Your task to perform on an android device: toggle pop-ups in chrome Image 0: 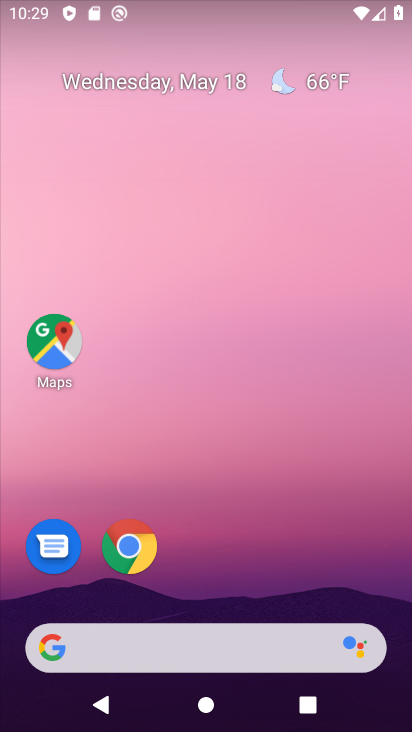
Step 0: click (127, 555)
Your task to perform on an android device: toggle pop-ups in chrome Image 1: 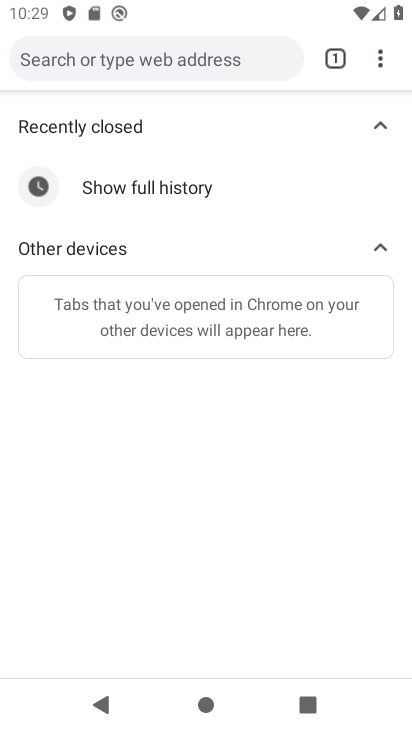
Step 1: click (375, 57)
Your task to perform on an android device: toggle pop-ups in chrome Image 2: 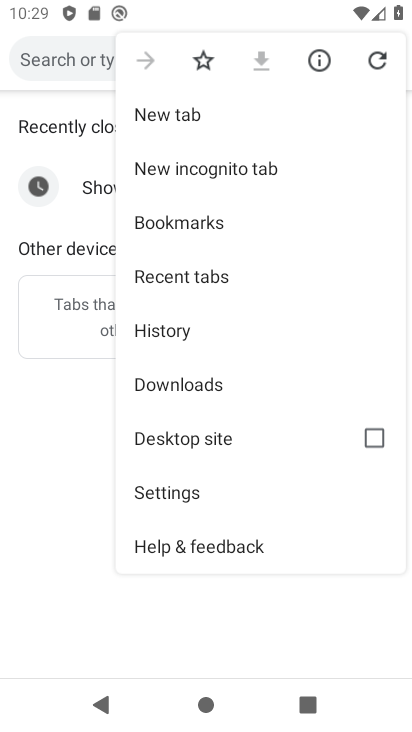
Step 2: click (138, 490)
Your task to perform on an android device: toggle pop-ups in chrome Image 3: 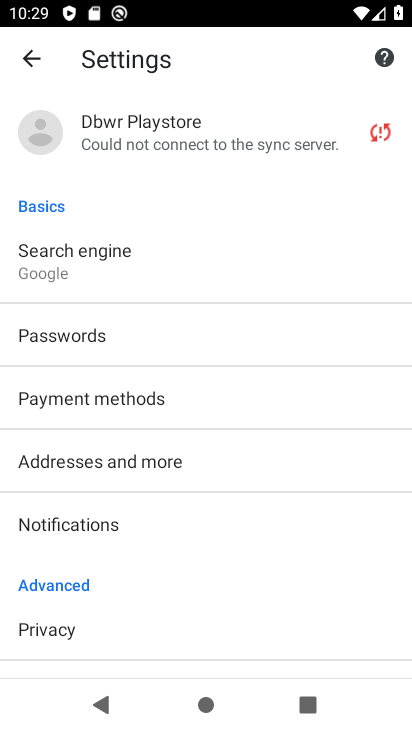
Step 3: drag from (118, 624) to (183, 185)
Your task to perform on an android device: toggle pop-ups in chrome Image 4: 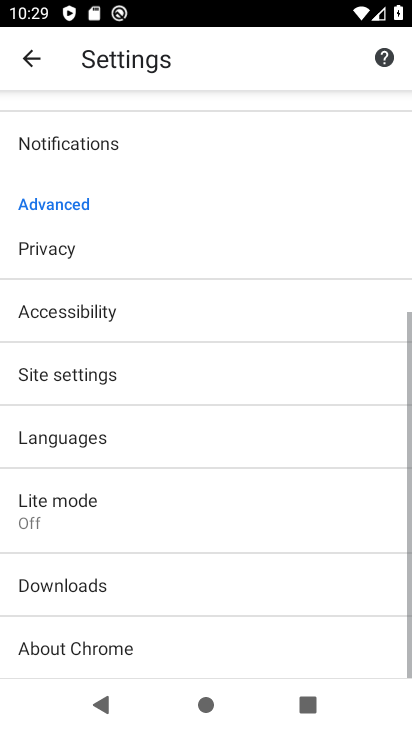
Step 4: click (65, 376)
Your task to perform on an android device: toggle pop-ups in chrome Image 5: 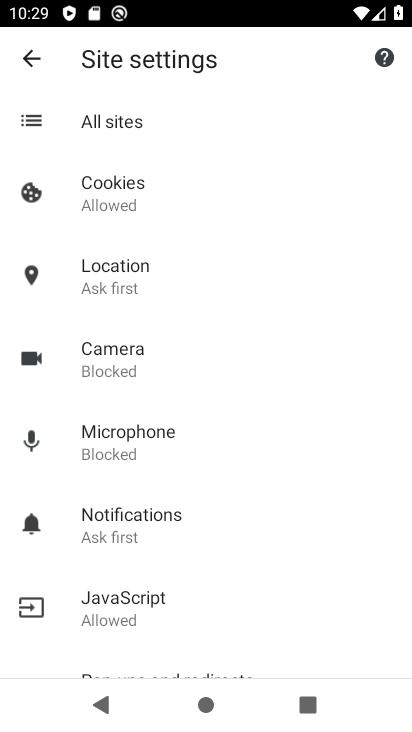
Step 5: drag from (161, 616) to (206, 253)
Your task to perform on an android device: toggle pop-ups in chrome Image 6: 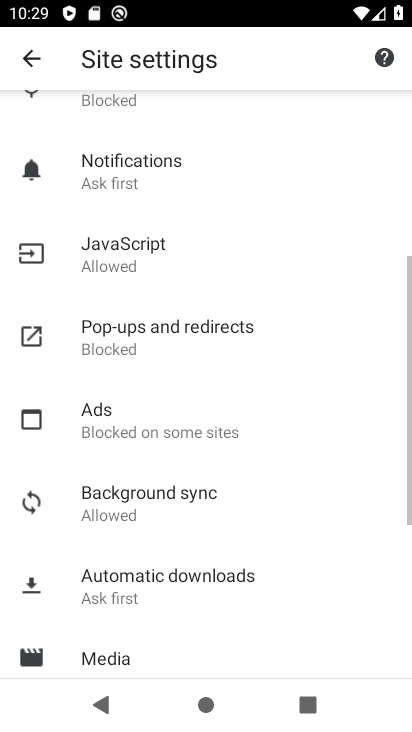
Step 6: click (132, 337)
Your task to perform on an android device: toggle pop-ups in chrome Image 7: 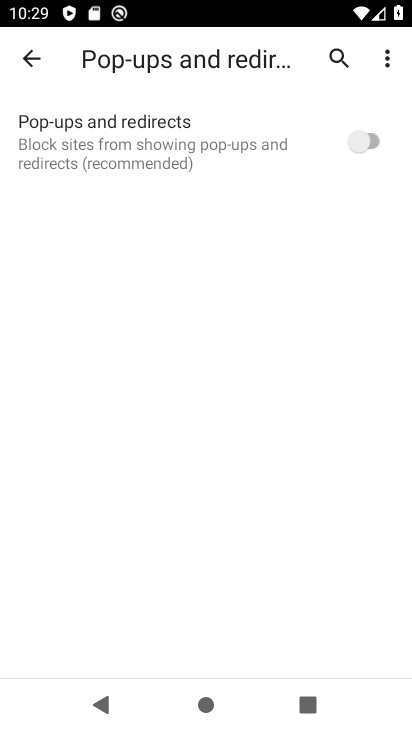
Step 7: click (368, 144)
Your task to perform on an android device: toggle pop-ups in chrome Image 8: 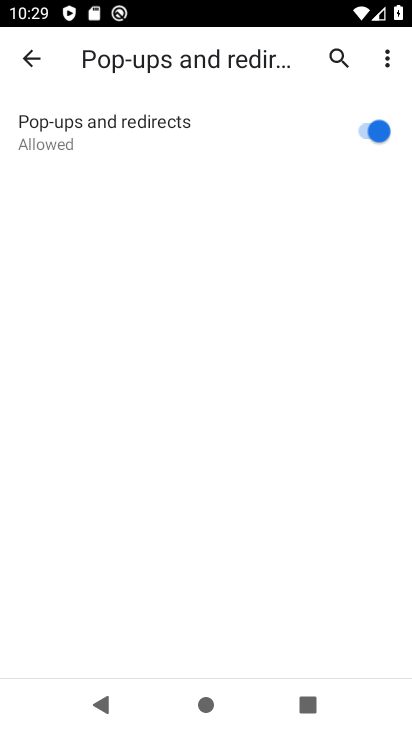
Step 8: click (368, 144)
Your task to perform on an android device: toggle pop-ups in chrome Image 9: 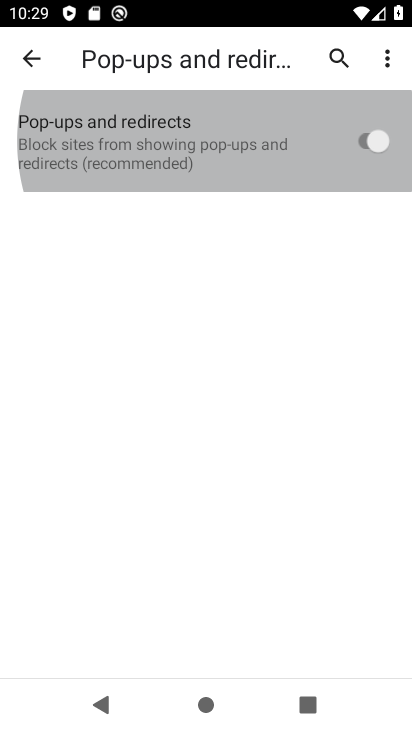
Step 9: click (368, 144)
Your task to perform on an android device: toggle pop-ups in chrome Image 10: 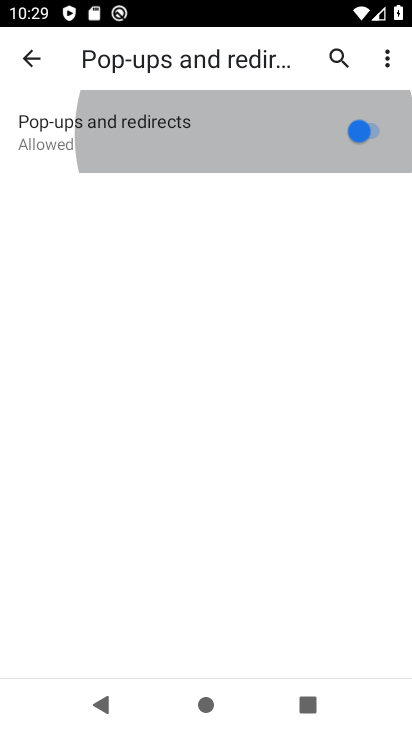
Step 10: click (368, 144)
Your task to perform on an android device: toggle pop-ups in chrome Image 11: 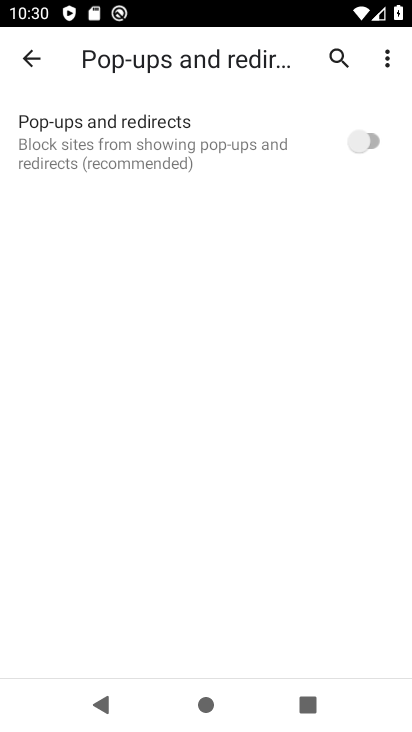
Step 11: task complete